Your task to perform on an android device: turn off location Image 0: 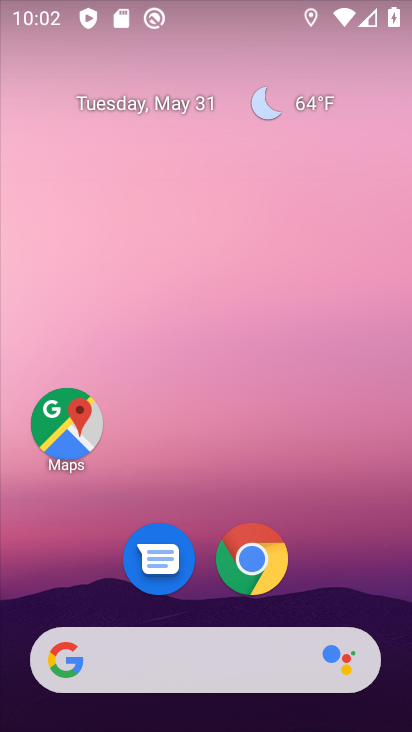
Step 0: drag from (96, 558) to (203, 94)
Your task to perform on an android device: turn off location Image 1: 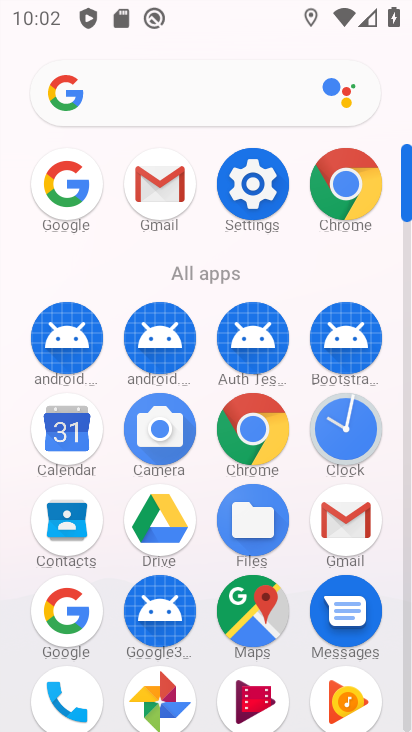
Step 1: drag from (188, 653) to (273, 321)
Your task to perform on an android device: turn off location Image 2: 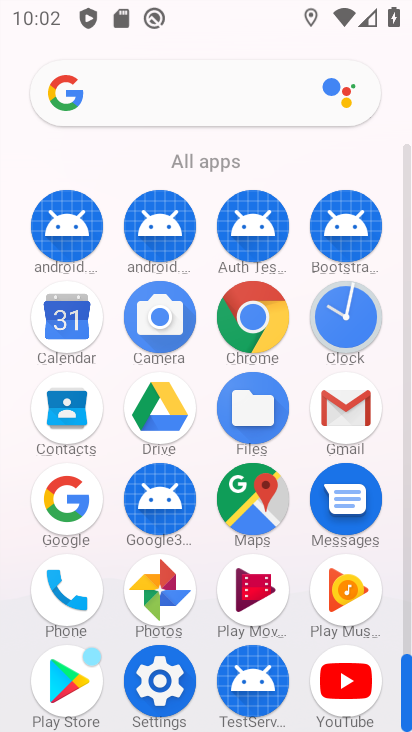
Step 2: click (147, 683)
Your task to perform on an android device: turn off location Image 3: 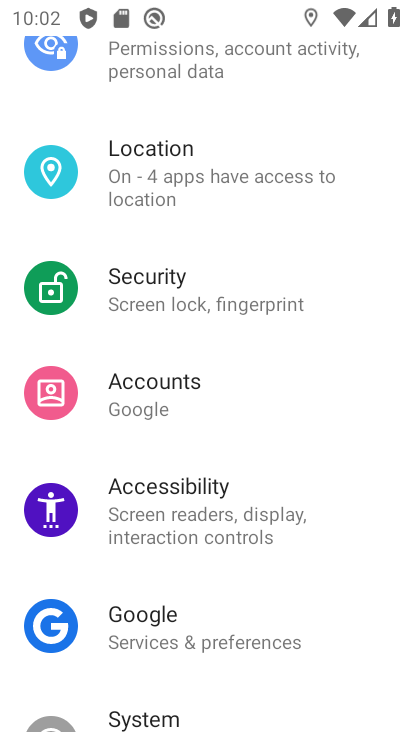
Step 3: click (199, 195)
Your task to perform on an android device: turn off location Image 4: 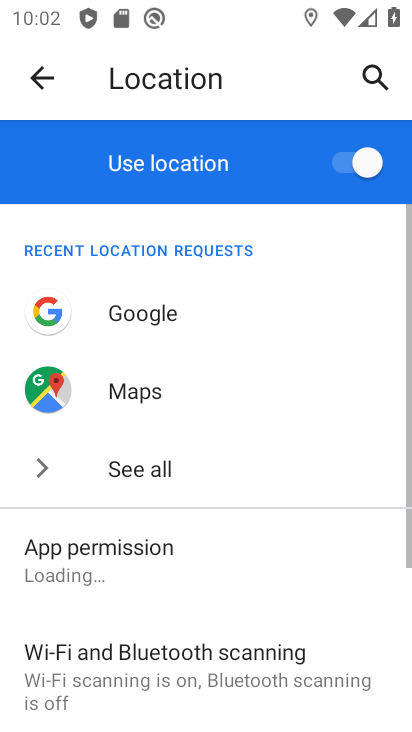
Step 4: click (336, 164)
Your task to perform on an android device: turn off location Image 5: 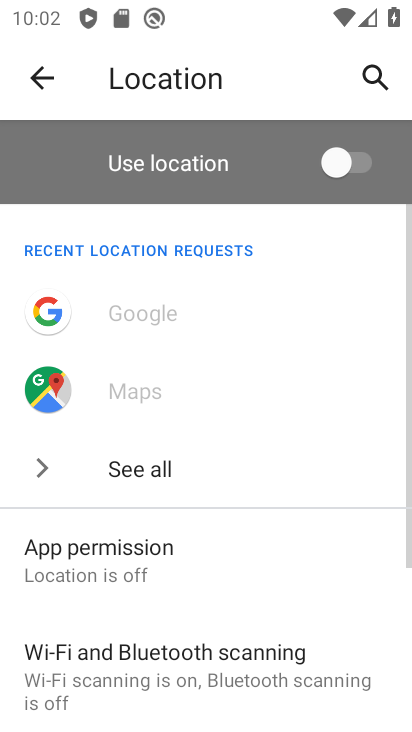
Step 5: task complete